Your task to perform on an android device: Find coffee shops on Maps Image 0: 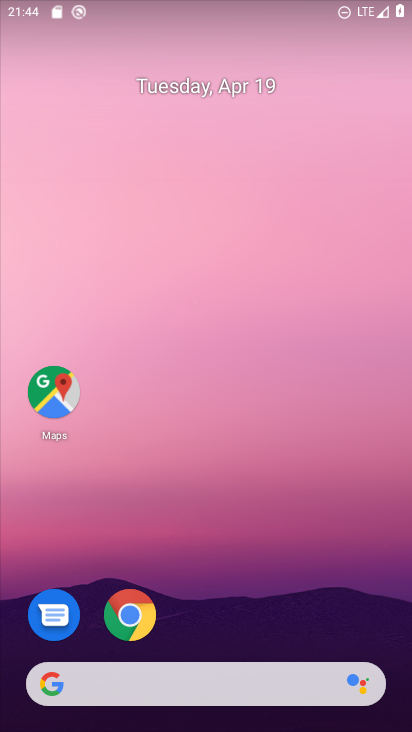
Step 0: click (66, 405)
Your task to perform on an android device: Find coffee shops on Maps Image 1: 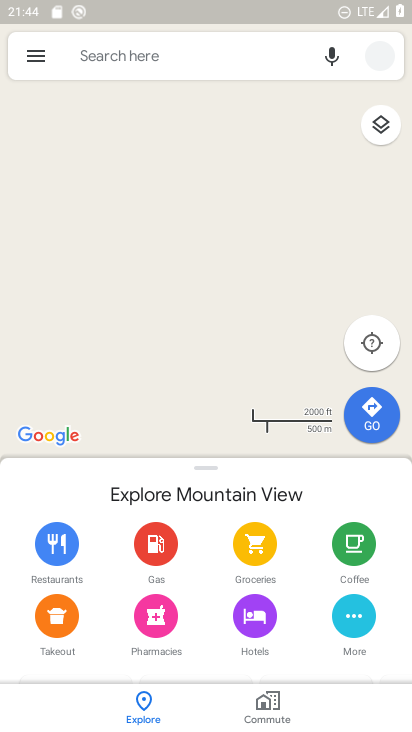
Step 1: click (194, 51)
Your task to perform on an android device: Find coffee shops on Maps Image 2: 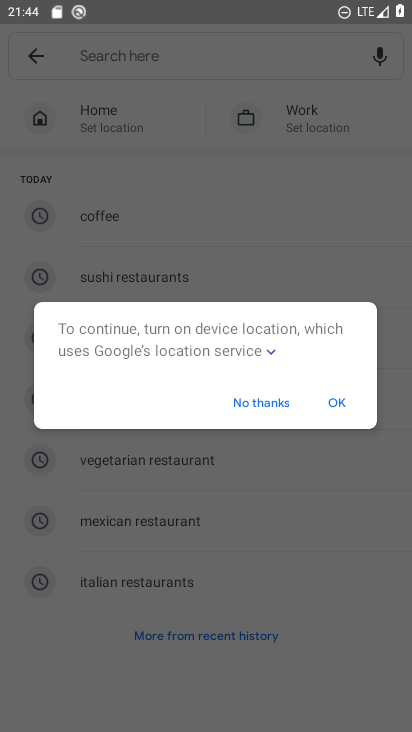
Step 2: click (342, 409)
Your task to perform on an android device: Find coffee shops on Maps Image 3: 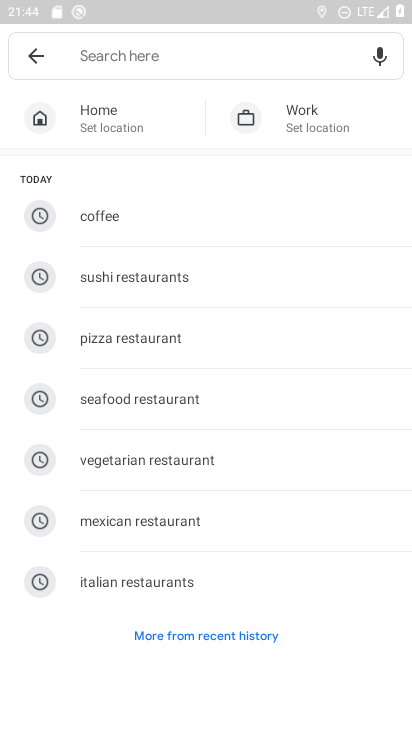
Step 3: click (106, 210)
Your task to perform on an android device: Find coffee shops on Maps Image 4: 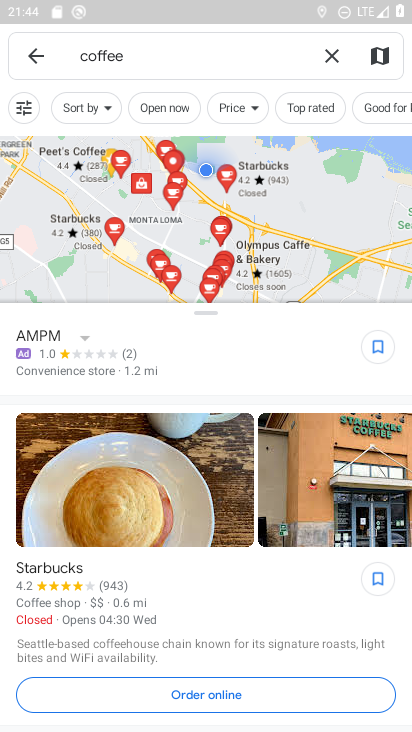
Step 4: task complete